Your task to perform on an android device: Go to Wikipedia Image 0: 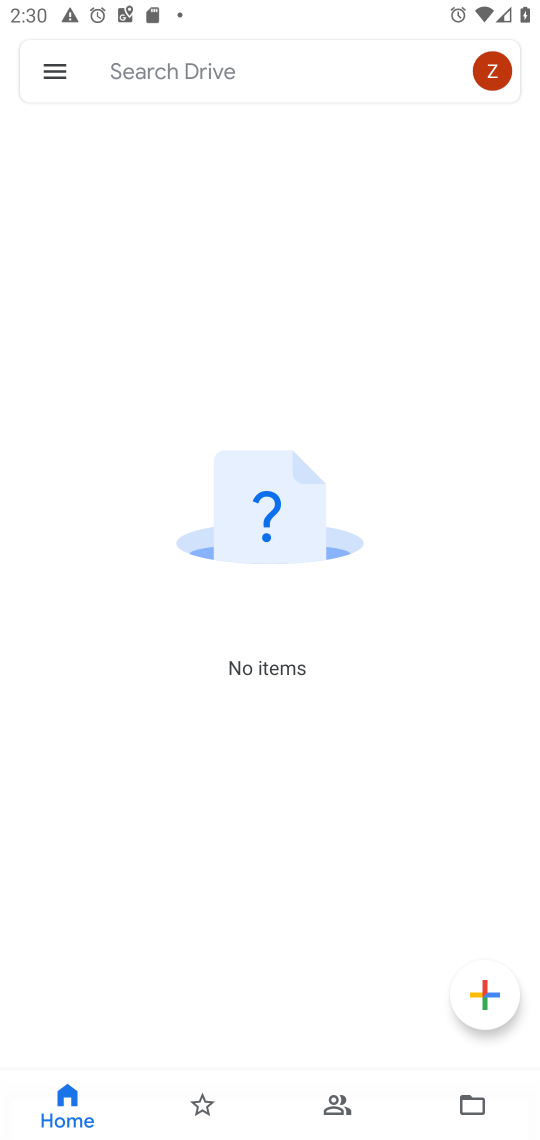
Step 0: press home button
Your task to perform on an android device: Go to Wikipedia Image 1: 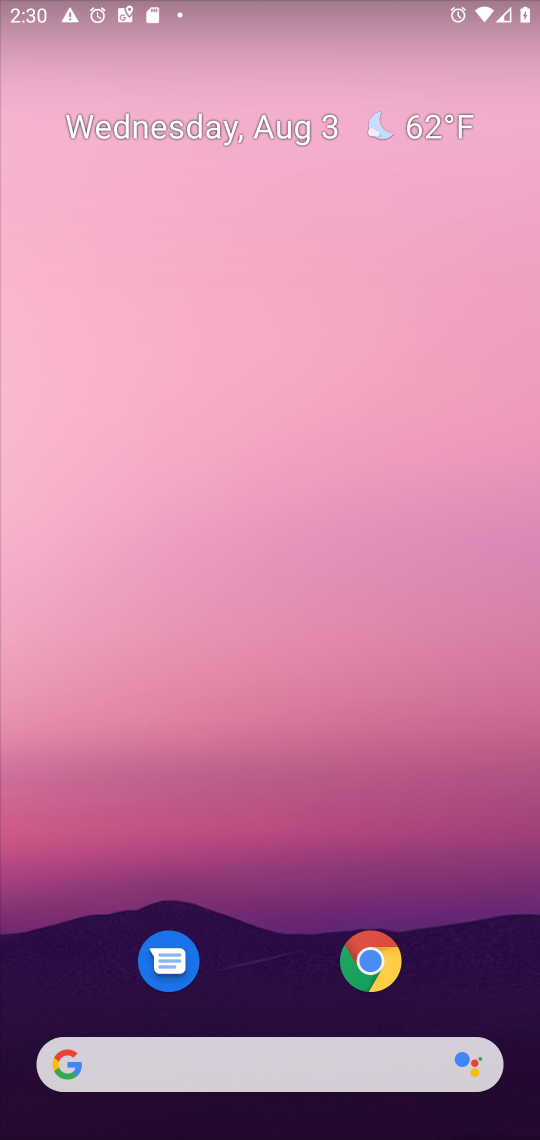
Step 1: click (374, 966)
Your task to perform on an android device: Go to Wikipedia Image 2: 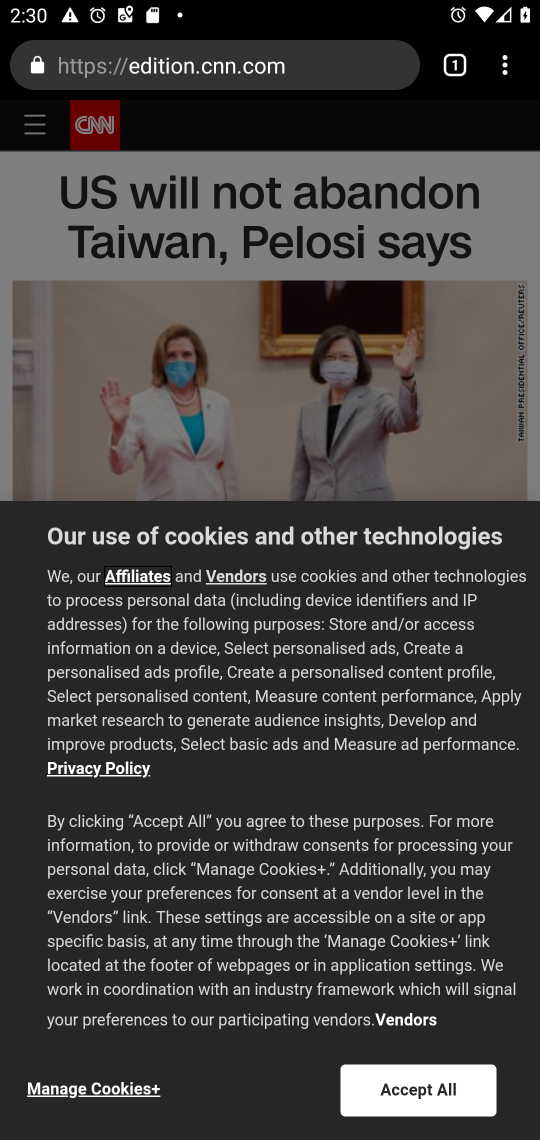
Step 2: click (293, 74)
Your task to perform on an android device: Go to Wikipedia Image 3: 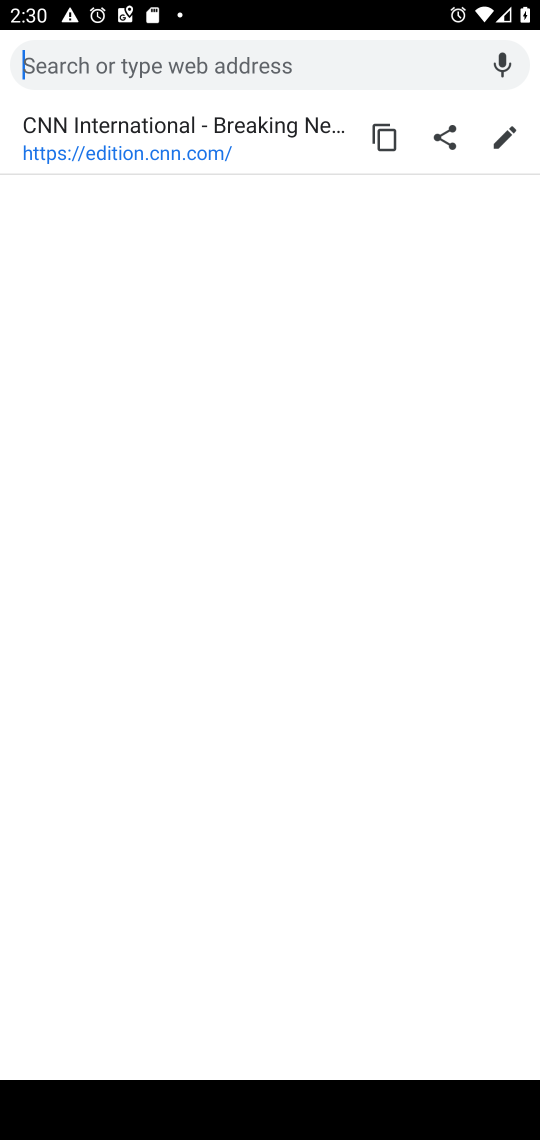
Step 3: type "wikipedia"
Your task to perform on an android device: Go to Wikipedia Image 4: 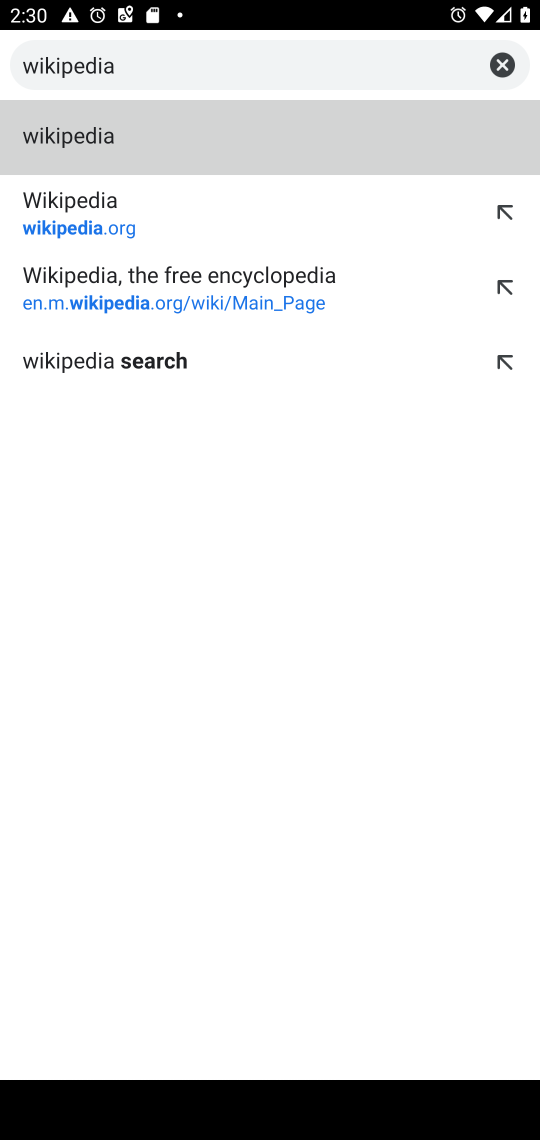
Step 4: click (96, 223)
Your task to perform on an android device: Go to Wikipedia Image 5: 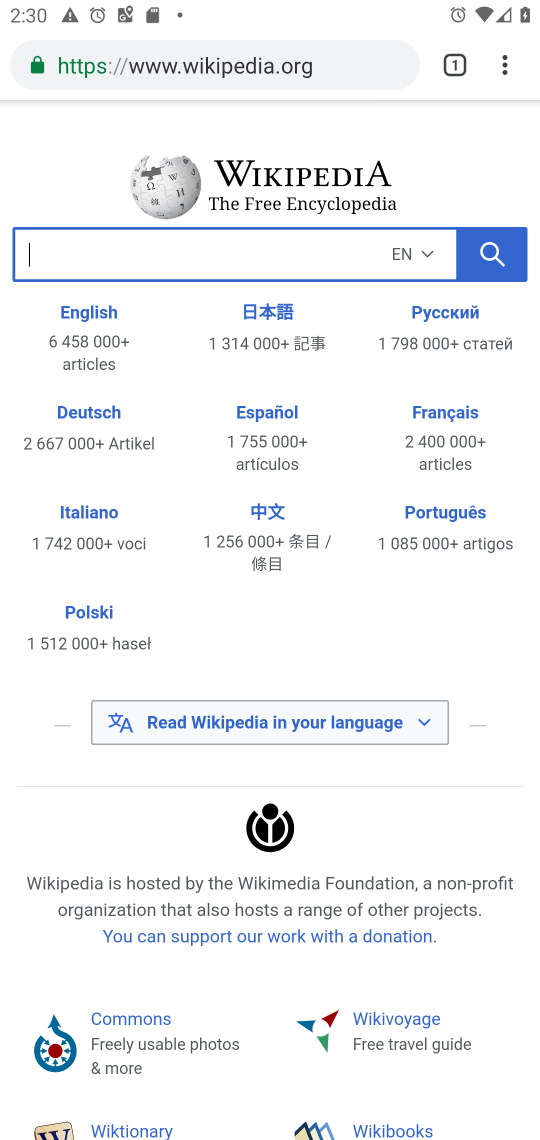
Step 5: task complete